Your task to perform on an android device: Go to privacy settings Image 0: 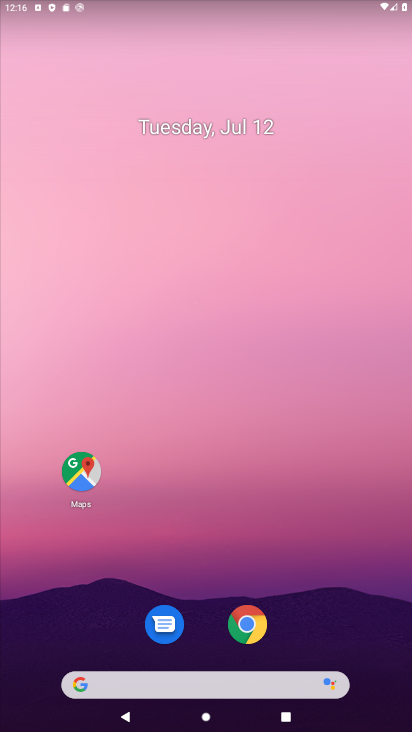
Step 0: drag from (196, 640) to (215, 196)
Your task to perform on an android device: Go to privacy settings Image 1: 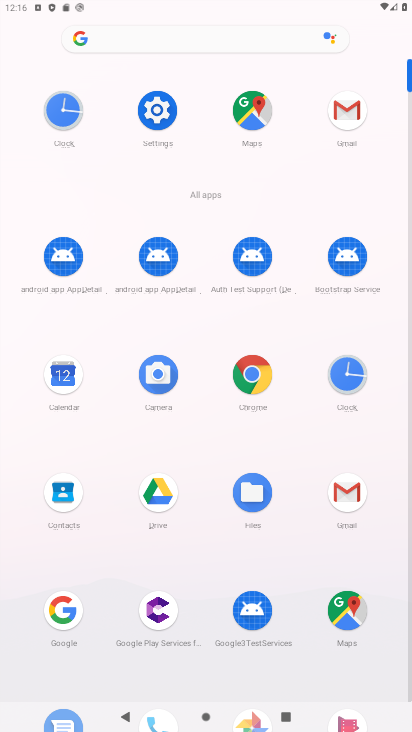
Step 1: click (154, 128)
Your task to perform on an android device: Go to privacy settings Image 2: 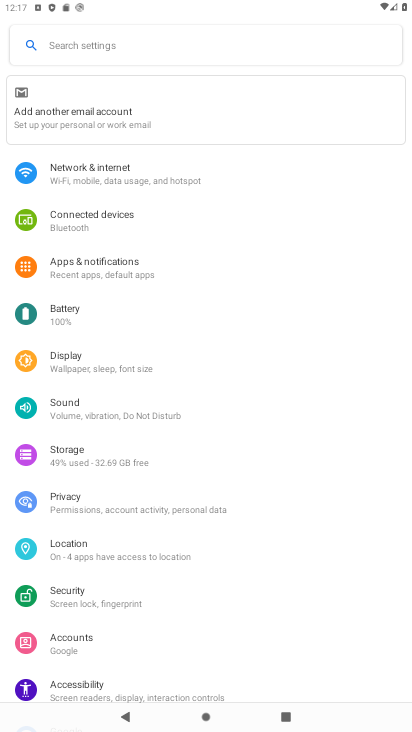
Step 2: click (139, 496)
Your task to perform on an android device: Go to privacy settings Image 3: 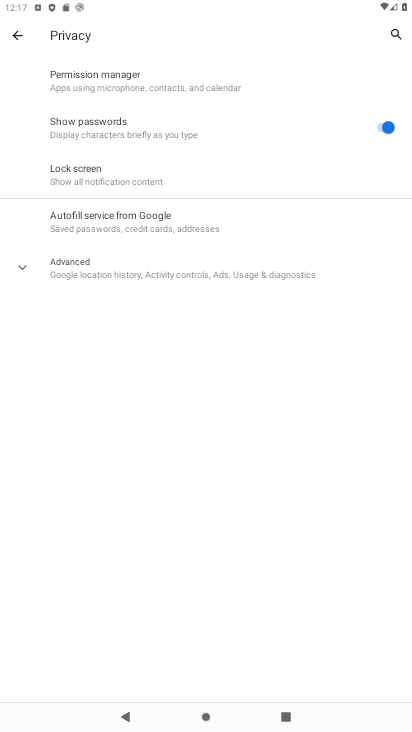
Step 3: task complete